Your task to perform on an android device: toggle data saver in the chrome app Image 0: 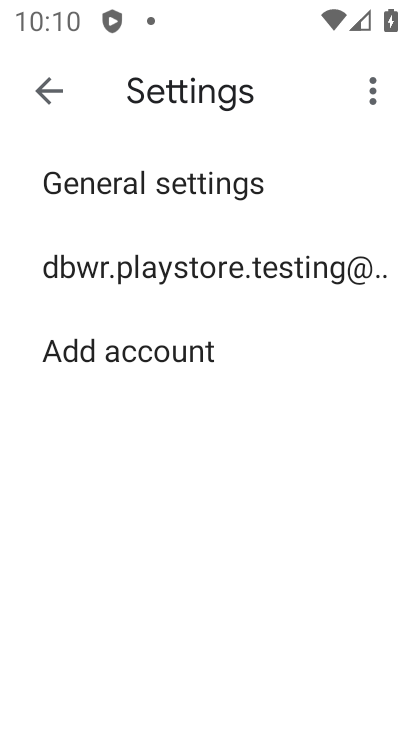
Step 0: press home button
Your task to perform on an android device: toggle data saver in the chrome app Image 1: 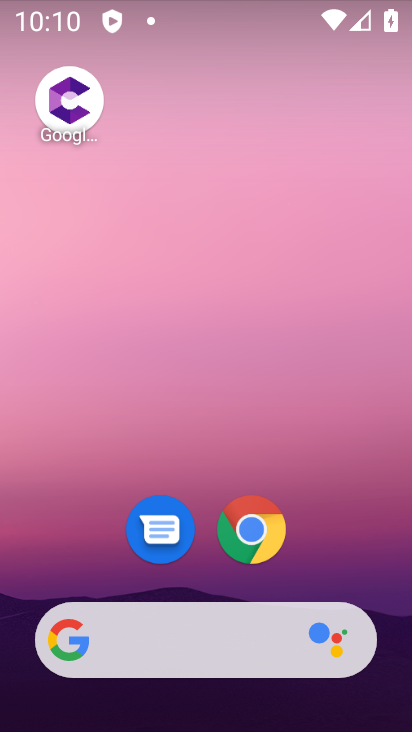
Step 1: click (276, 533)
Your task to perform on an android device: toggle data saver in the chrome app Image 2: 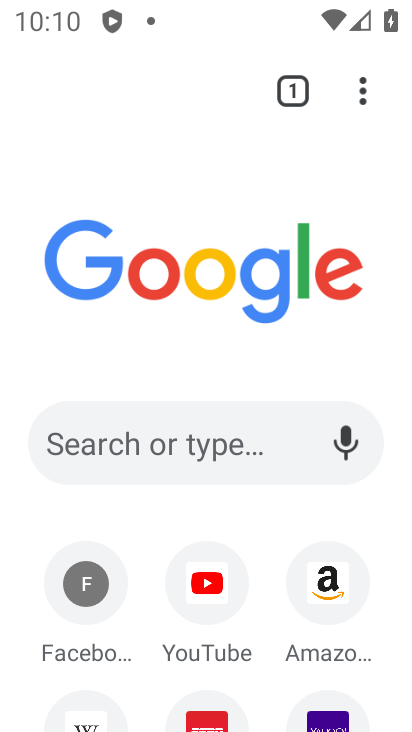
Step 2: click (360, 96)
Your task to perform on an android device: toggle data saver in the chrome app Image 3: 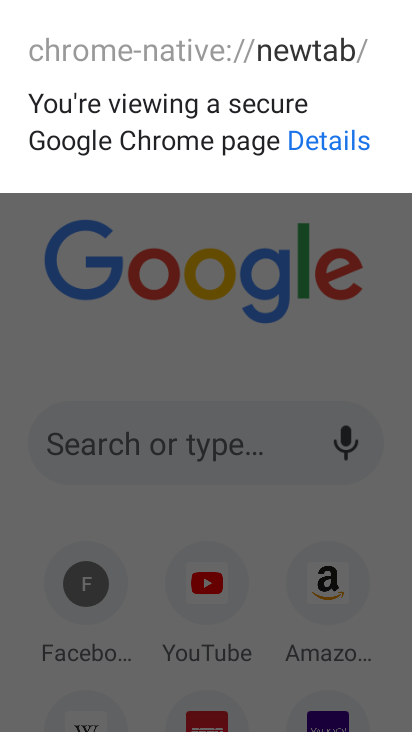
Step 3: click (267, 359)
Your task to perform on an android device: toggle data saver in the chrome app Image 4: 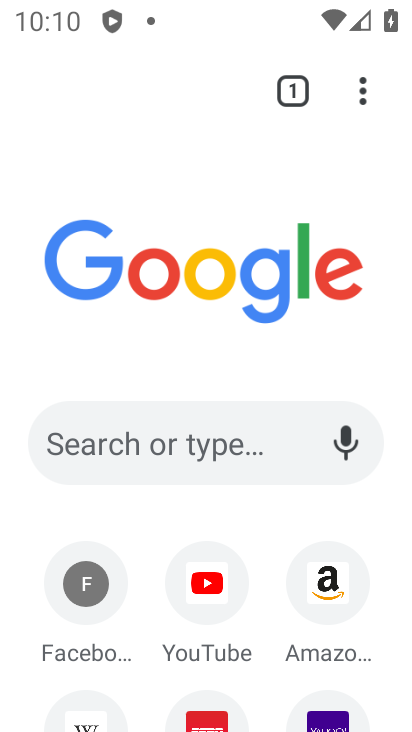
Step 4: click (365, 95)
Your task to perform on an android device: toggle data saver in the chrome app Image 5: 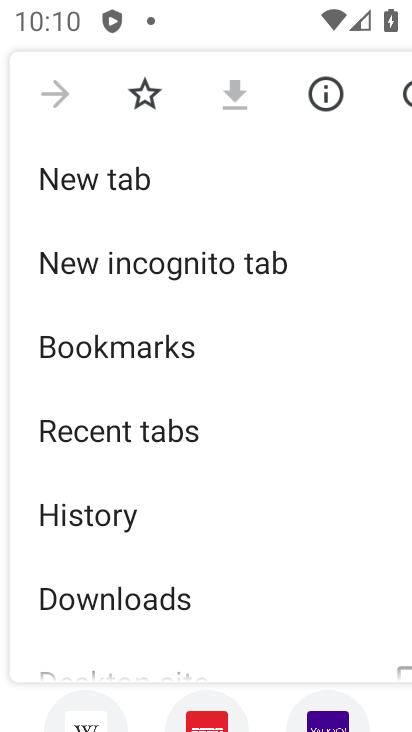
Step 5: drag from (203, 525) to (224, 44)
Your task to perform on an android device: toggle data saver in the chrome app Image 6: 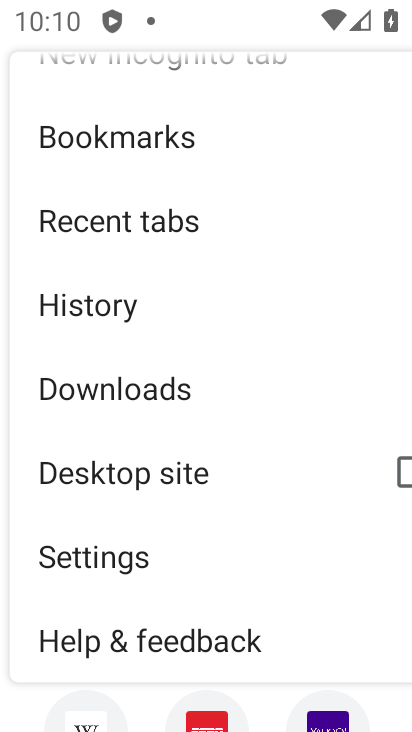
Step 6: click (43, 572)
Your task to perform on an android device: toggle data saver in the chrome app Image 7: 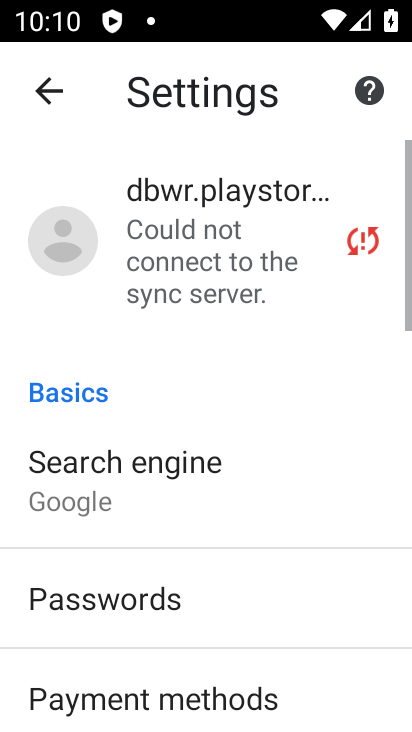
Step 7: drag from (54, 549) to (150, 106)
Your task to perform on an android device: toggle data saver in the chrome app Image 8: 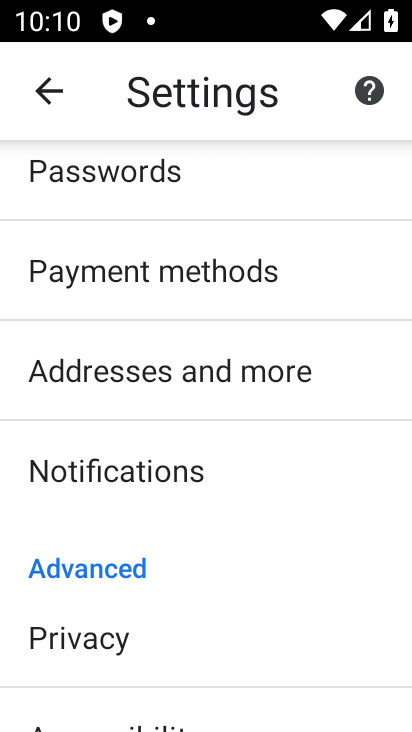
Step 8: drag from (128, 597) to (210, 147)
Your task to perform on an android device: toggle data saver in the chrome app Image 9: 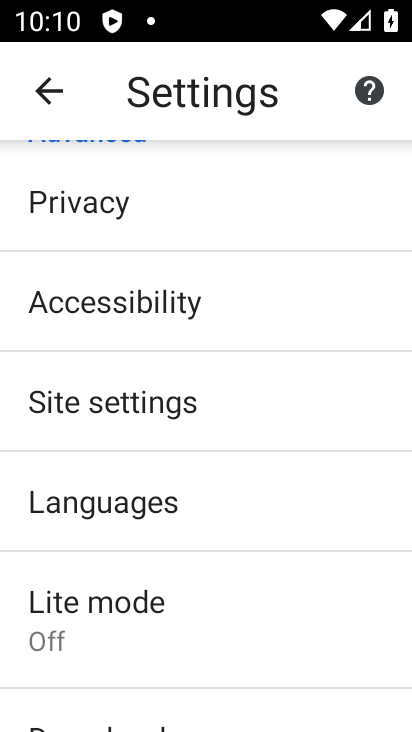
Step 9: click (83, 584)
Your task to perform on an android device: toggle data saver in the chrome app Image 10: 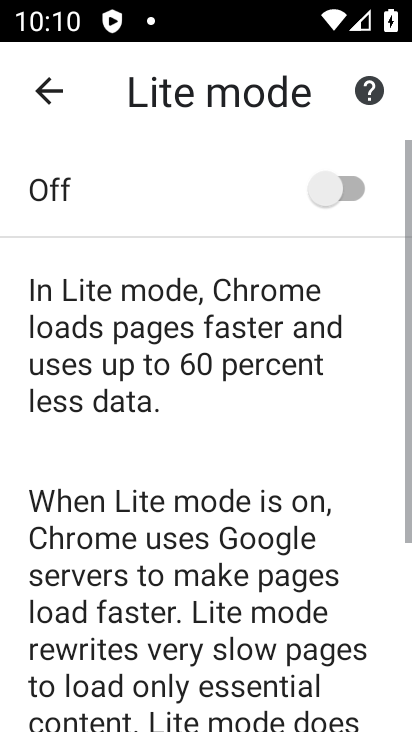
Step 10: click (327, 174)
Your task to perform on an android device: toggle data saver in the chrome app Image 11: 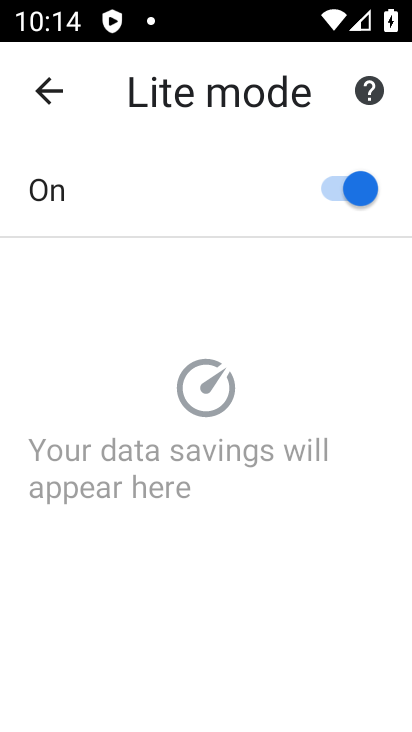
Step 11: task complete